Your task to perform on an android device: clear all cookies in the chrome app Image 0: 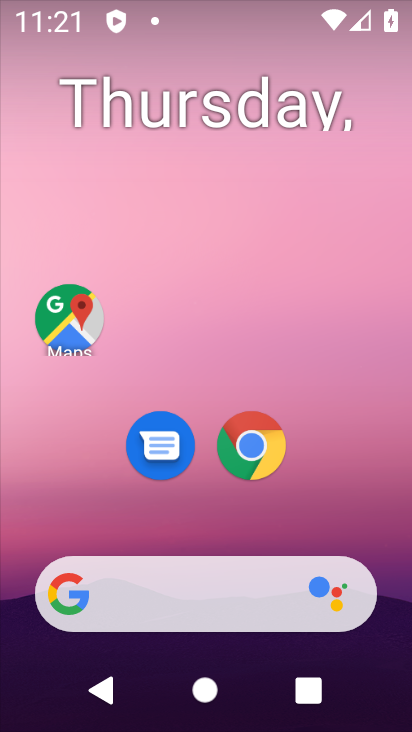
Step 0: drag from (387, 624) to (266, 78)
Your task to perform on an android device: clear all cookies in the chrome app Image 1: 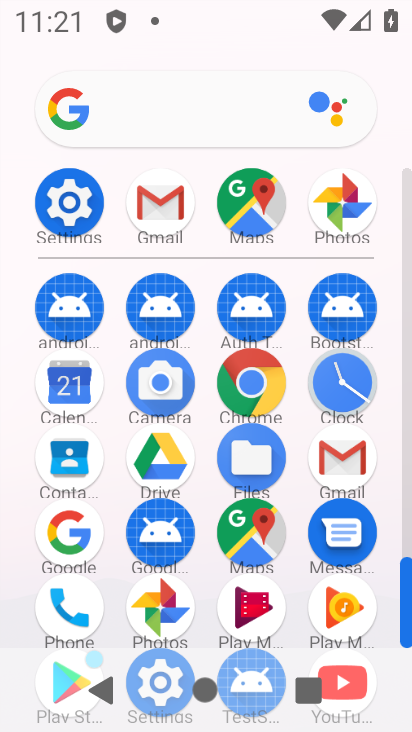
Step 1: click (254, 376)
Your task to perform on an android device: clear all cookies in the chrome app Image 2: 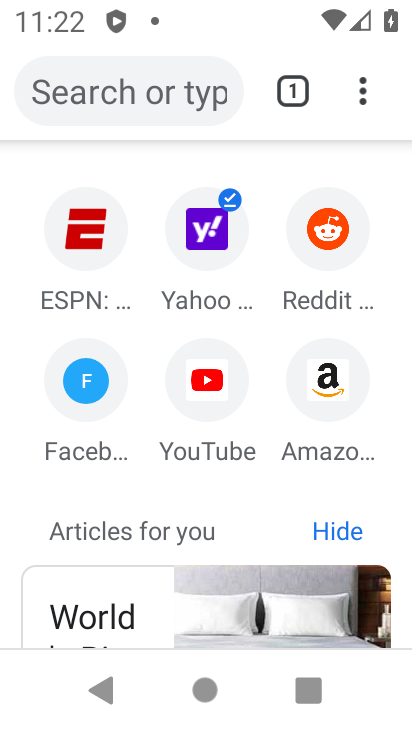
Step 2: click (366, 80)
Your task to perform on an android device: clear all cookies in the chrome app Image 3: 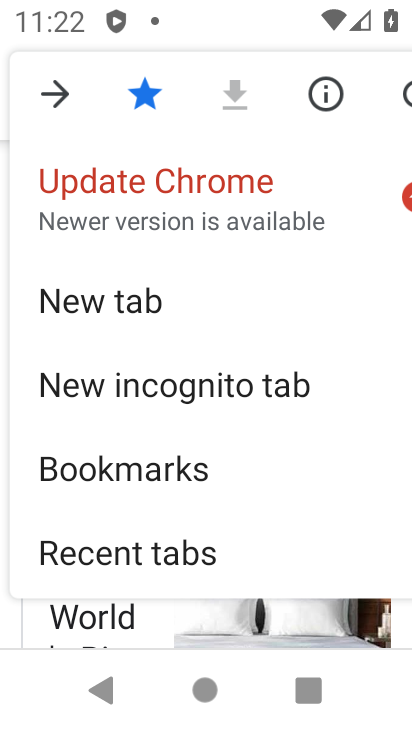
Step 3: drag from (151, 509) to (181, 148)
Your task to perform on an android device: clear all cookies in the chrome app Image 4: 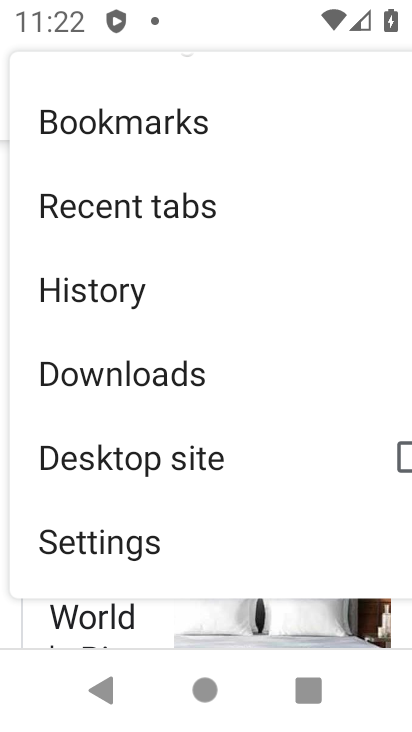
Step 4: drag from (163, 510) to (218, 167)
Your task to perform on an android device: clear all cookies in the chrome app Image 5: 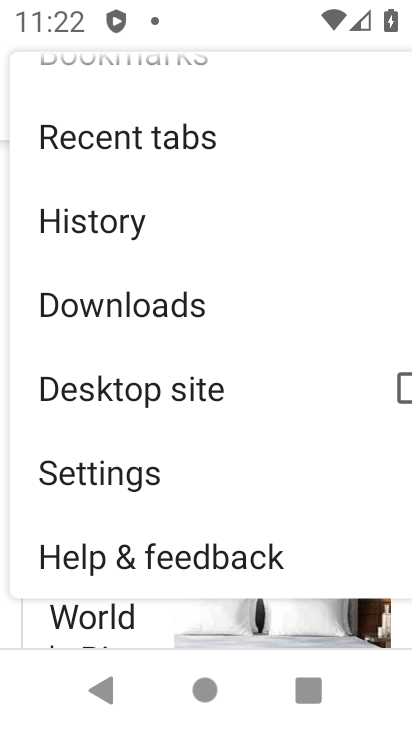
Step 5: click (122, 201)
Your task to perform on an android device: clear all cookies in the chrome app Image 6: 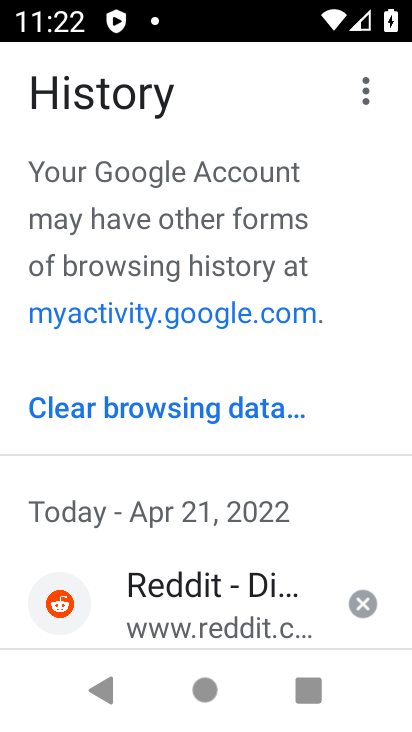
Step 6: click (121, 404)
Your task to perform on an android device: clear all cookies in the chrome app Image 7: 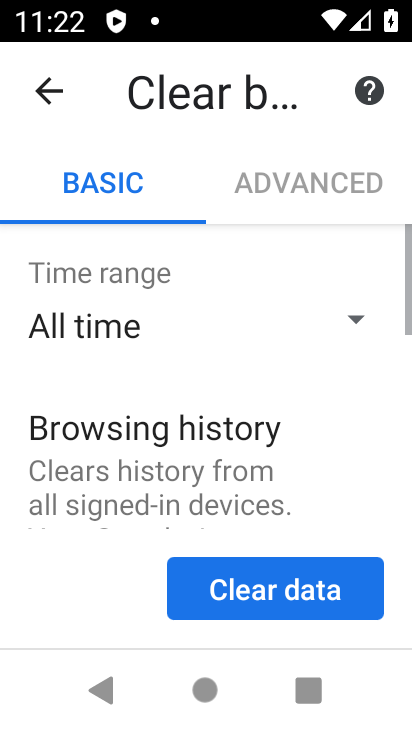
Step 7: click (254, 568)
Your task to perform on an android device: clear all cookies in the chrome app Image 8: 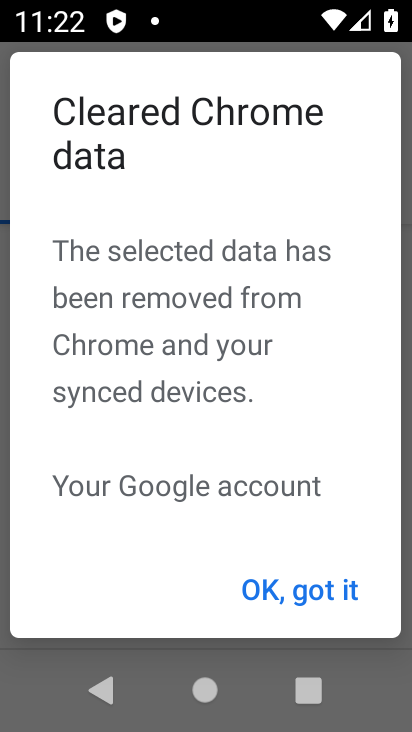
Step 8: click (280, 582)
Your task to perform on an android device: clear all cookies in the chrome app Image 9: 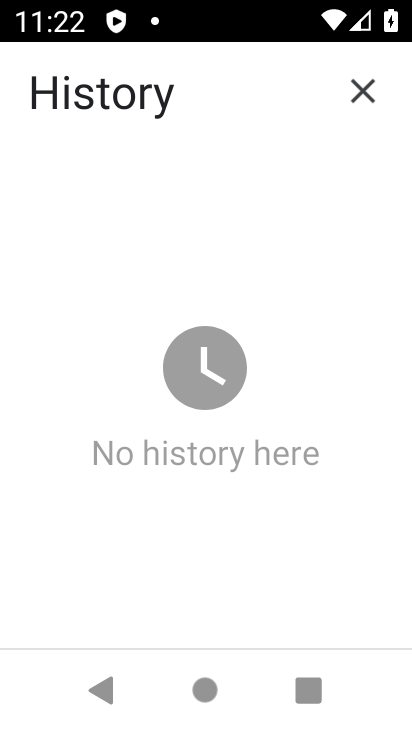
Step 9: task complete